Your task to perform on an android device: change timer sound Image 0: 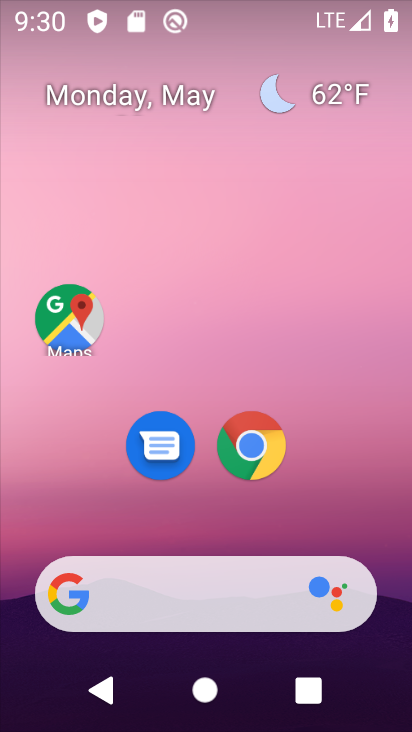
Step 0: drag from (392, 601) to (183, 76)
Your task to perform on an android device: change timer sound Image 1: 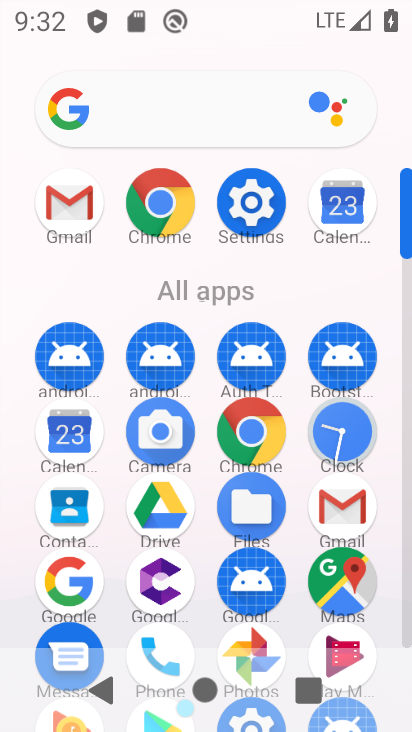
Step 1: click (345, 453)
Your task to perform on an android device: change timer sound Image 2: 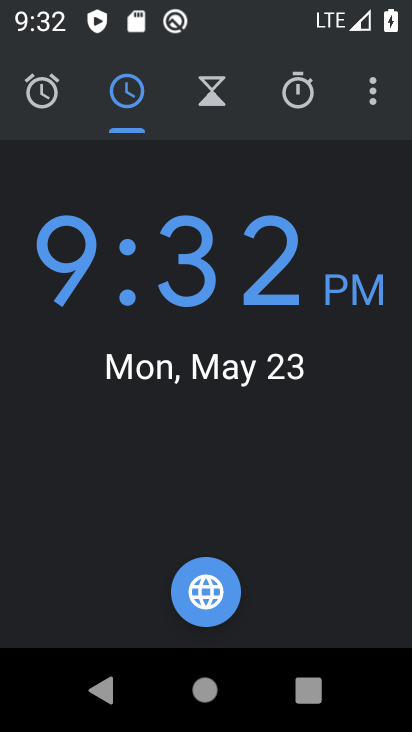
Step 2: click (375, 92)
Your task to perform on an android device: change timer sound Image 3: 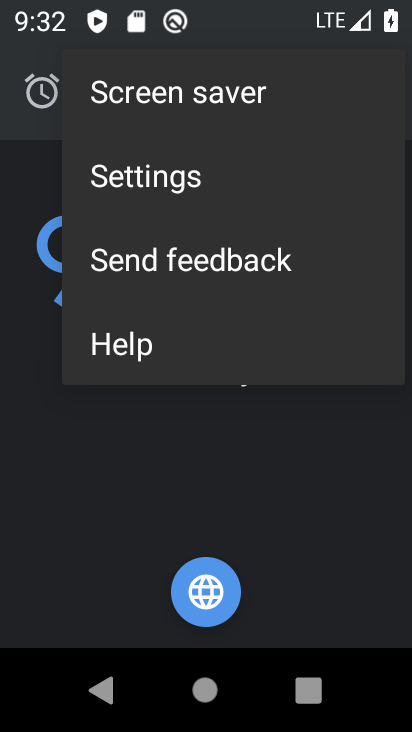
Step 3: click (211, 198)
Your task to perform on an android device: change timer sound Image 4: 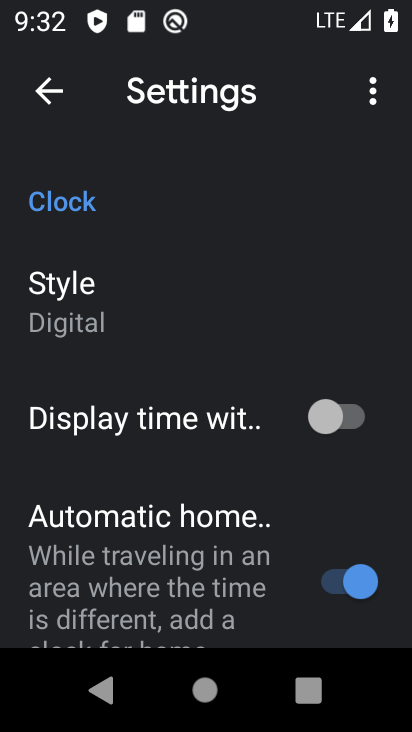
Step 4: drag from (199, 608) to (221, 200)
Your task to perform on an android device: change timer sound Image 5: 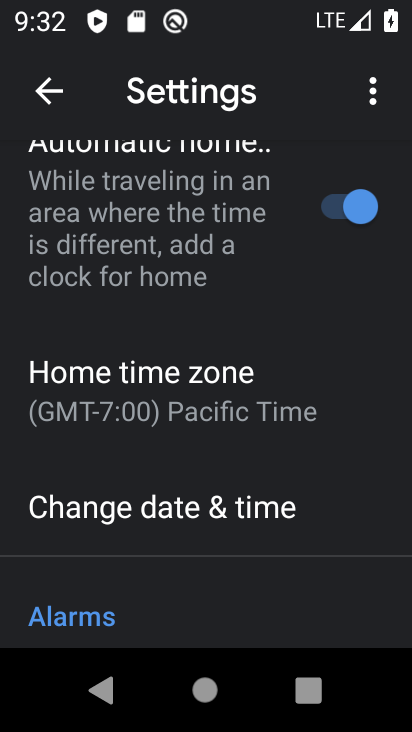
Step 5: drag from (200, 616) to (294, 120)
Your task to perform on an android device: change timer sound Image 6: 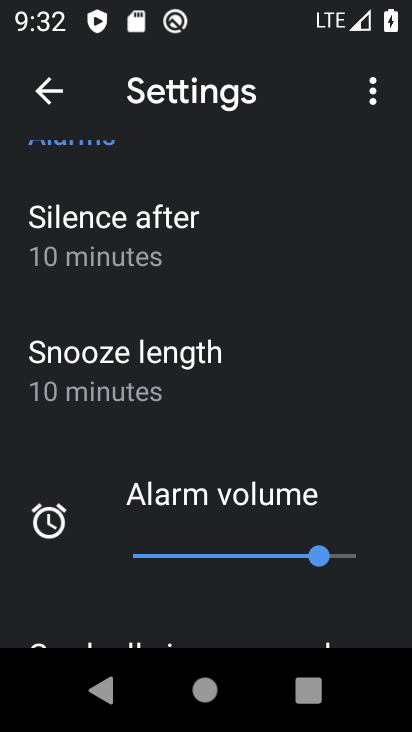
Step 6: drag from (194, 456) to (239, 82)
Your task to perform on an android device: change timer sound Image 7: 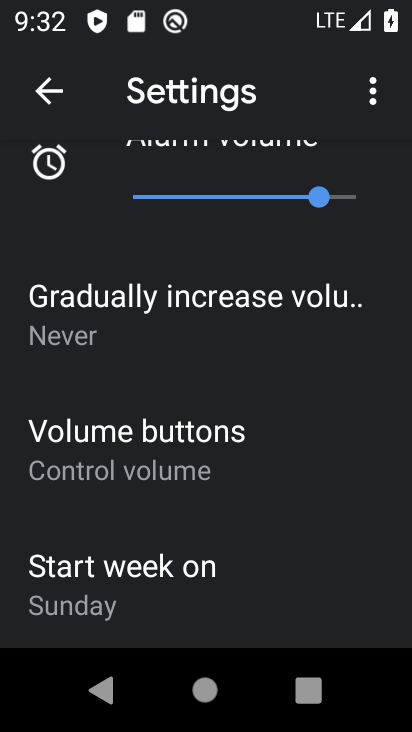
Step 7: drag from (200, 548) to (221, 217)
Your task to perform on an android device: change timer sound Image 8: 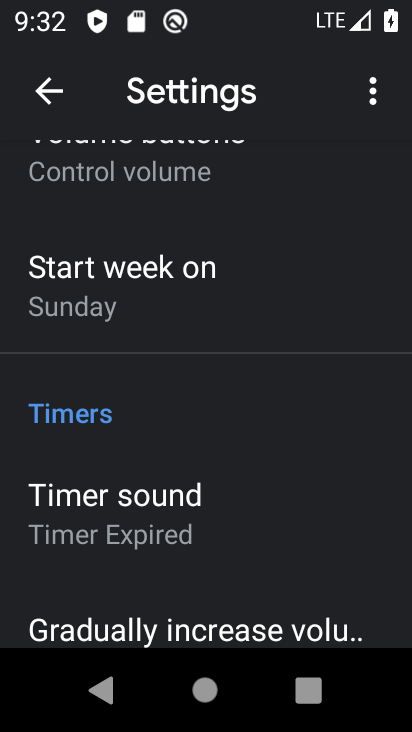
Step 8: click (182, 536)
Your task to perform on an android device: change timer sound Image 9: 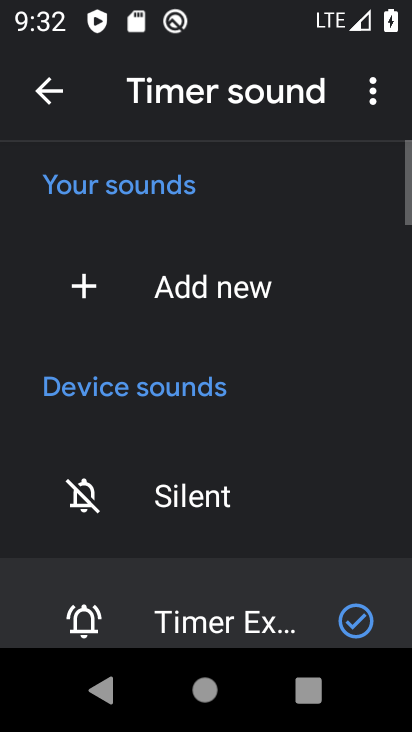
Step 9: click (249, 499)
Your task to perform on an android device: change timer sound Image 10: 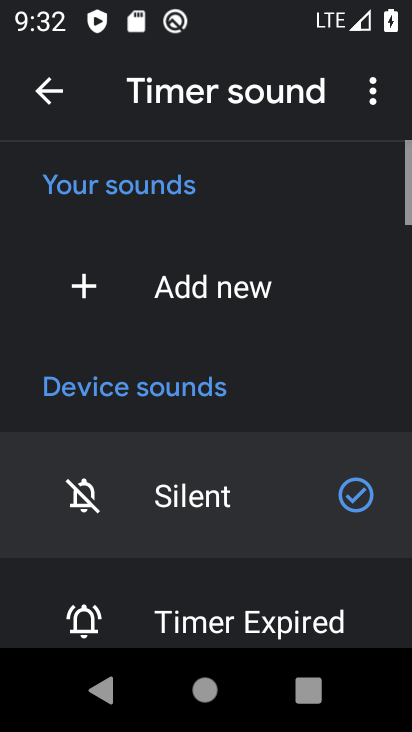
Step 10: task complete